Your task to perform on an android device: turn pop-ups off in chrome Image 0: 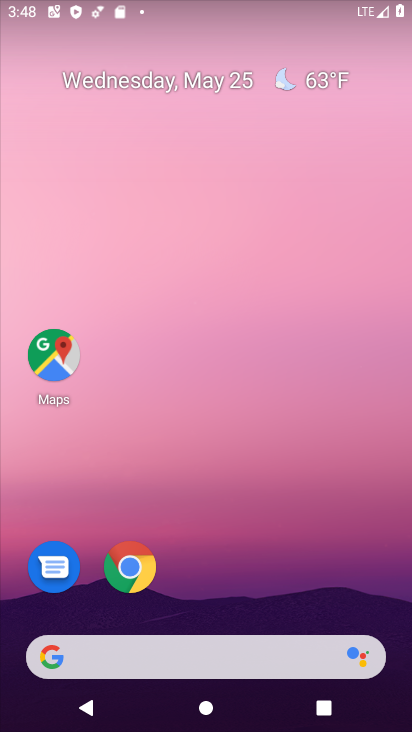
Step 0: drag from (236, 574) to (98, 59)
Your task to perform on an android device: turn pop-ups off in chrome Image 1: 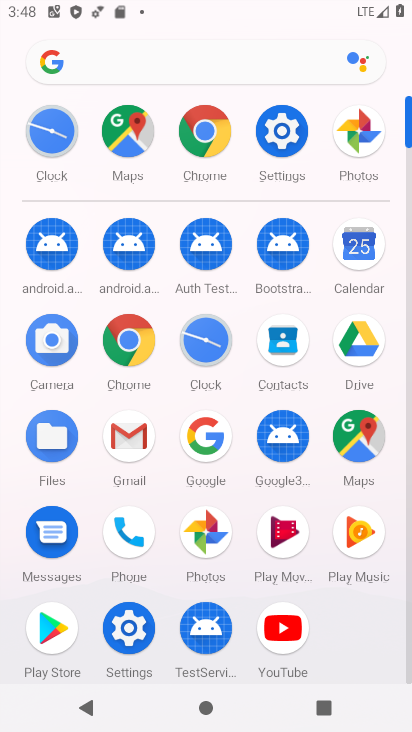
Step 1: click (131, 338)
Your task to perform on an android device: turn pop-ups off in chrome Image 2: 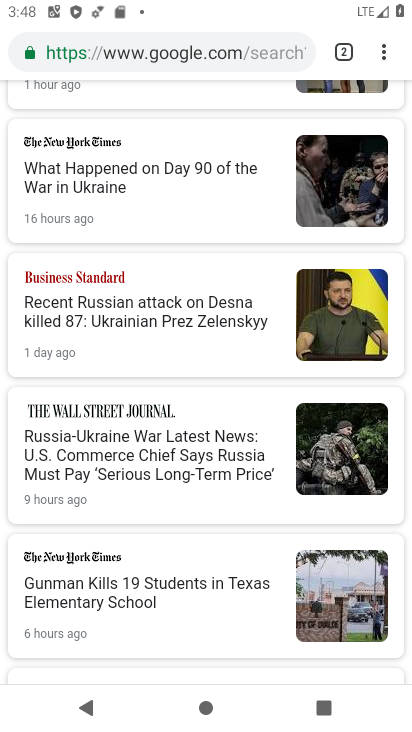
Step 2: drag from (380, 49) to (199, 584)
Your task to perform on an android device: turn pop-ups off in chrome Image 3: 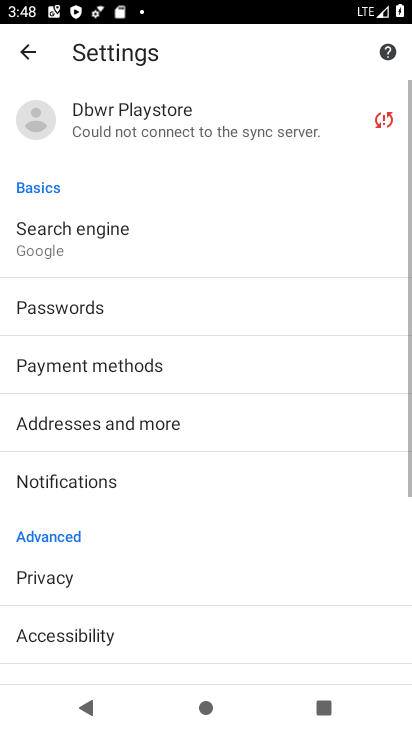
Step 3: drag from (278, 580) to (249, 273)
Your task to perform on an android device: turn pop-ups off in chrome Image 4: 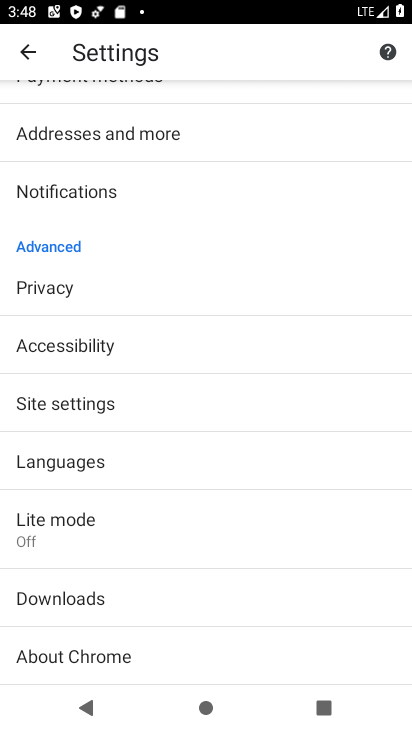
Step 4: click (57, 393)
Your task to perform on an android device: turn pop-ups off in chrome Image 5: 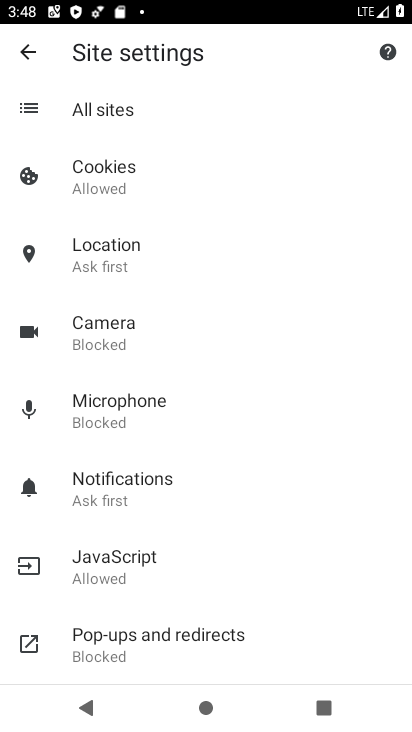
Step 5: click (144, 638)
Your task to perform on an android device: turn pop-ups off in chrome Image 6: 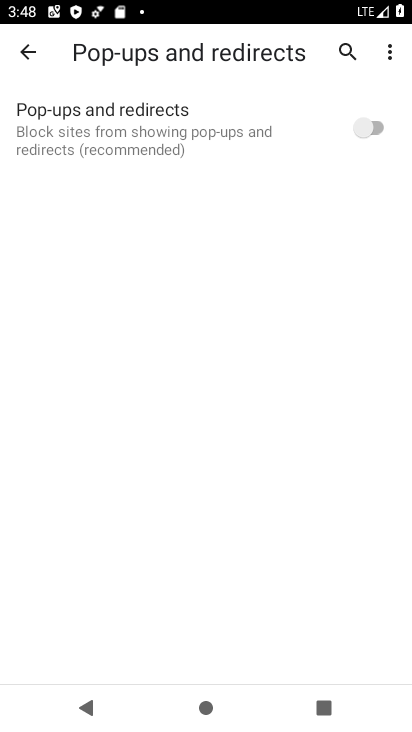
Step 6: task complete